Your task to perform on an android device: Go to network settings Image 0: 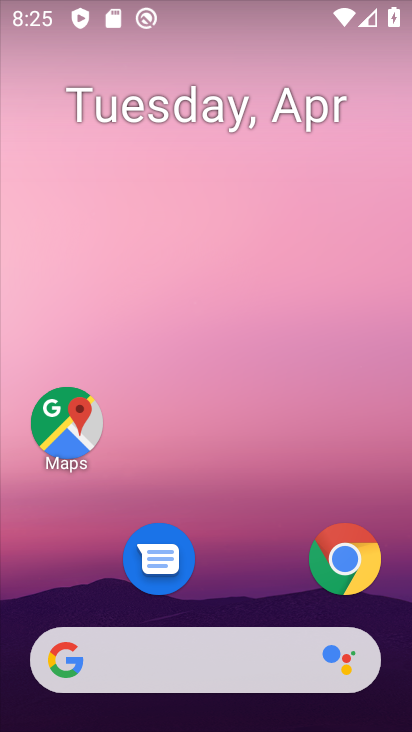
Step 0: drag from (279, 706) to (262, 142)
Your task to perform on an android device: Go to network settings Image 1: 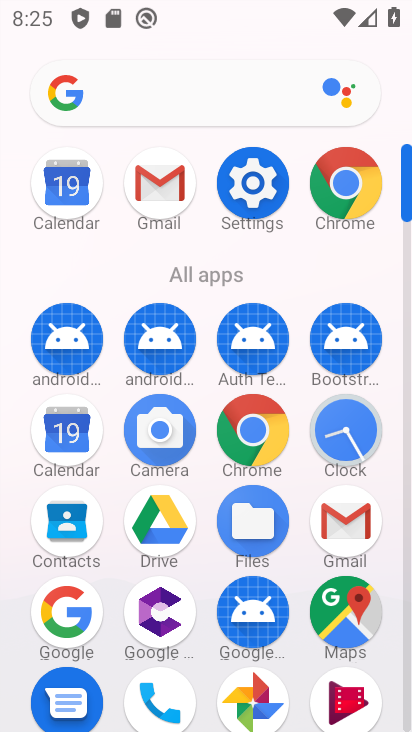
Step 1: click (261, 191)
Your task to perform on an android device: Go to network settings Image 2: 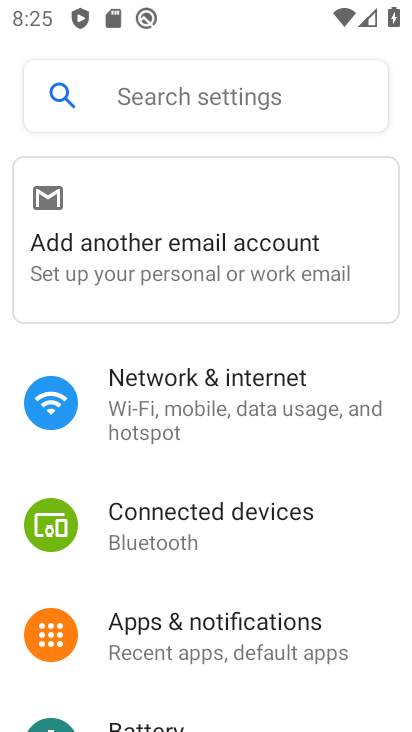
Step 2: click (204, 382)
Your task to perform on an android device: Go to network settings Image 3: 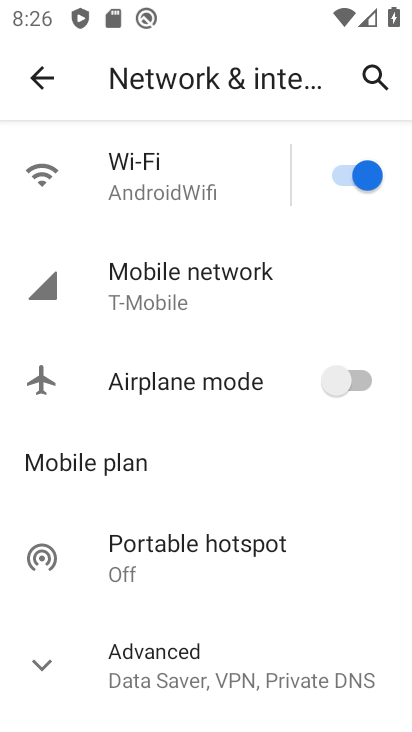
Step 3: click (183, 175)
Your task to perform on an android device: Go to network settings Image 4: 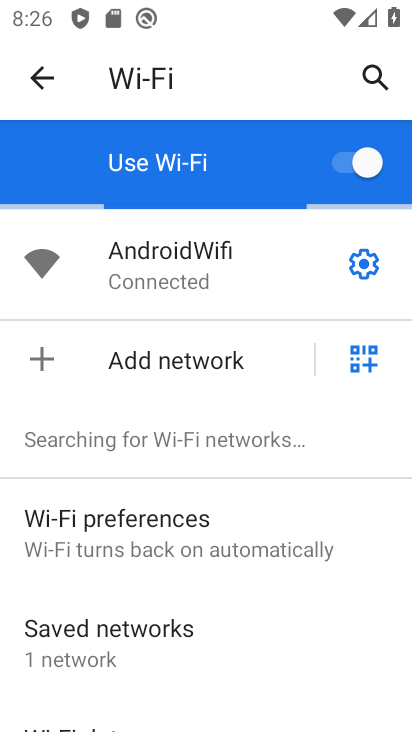
Step 4: task complete